Your task to perform on an android device: turn off smart reply in the gmail app Image 0: 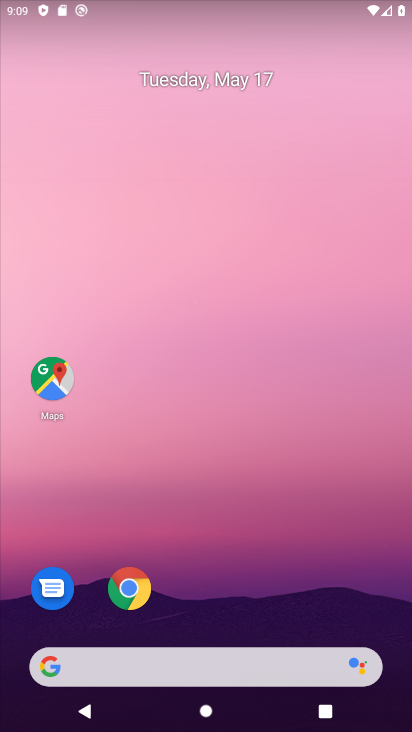
Step 0: drag from (211, 646) to (123, 19)
Your task to perform on an android device: turn off smart reply in the gmail app Image 1: 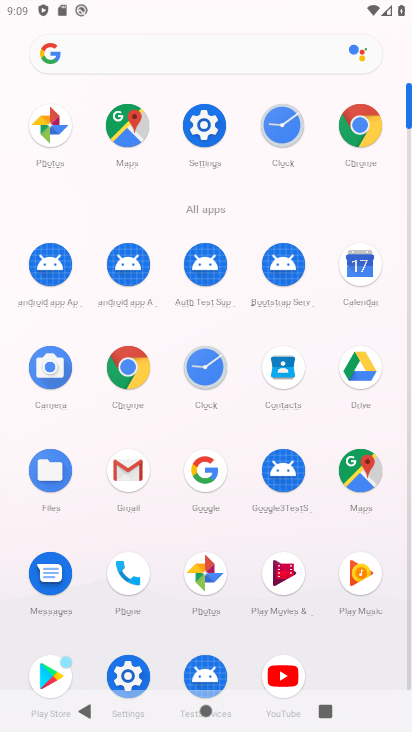
Step 1: click (136, 470)
Your task to perform on an android device: turn off smart reply in the gmail app Image 2: 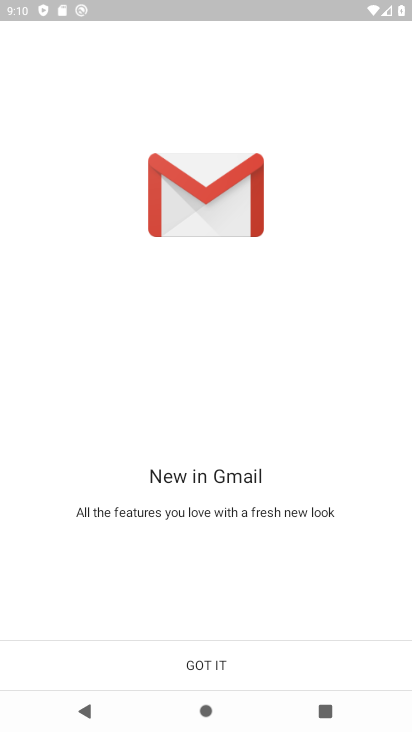
Step 2: click (244, 640)
Your task to perform on an android device: turn off smart reply in the gmail app Image 3: 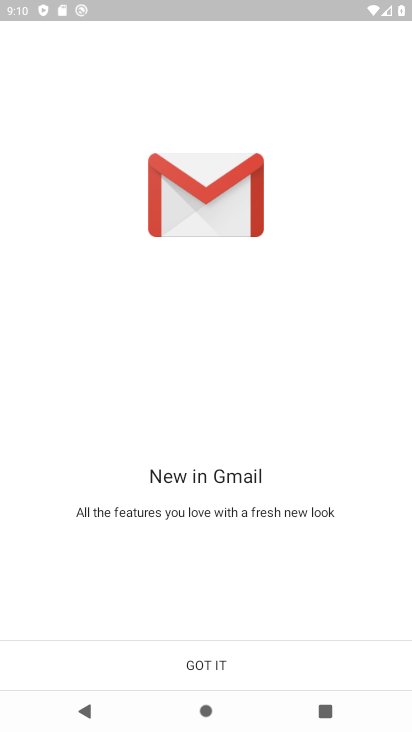
Step 3: click (254, 659)
Your task to perform on an android device: turn off smart reply in the gmail app Image 4: 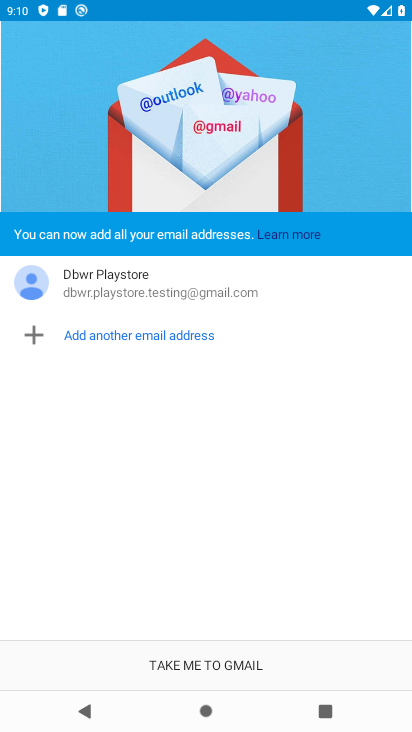
Step 4: click (254, 651)
Your task to perform on an android device: turn off smart reply in the gmail app Image 5: 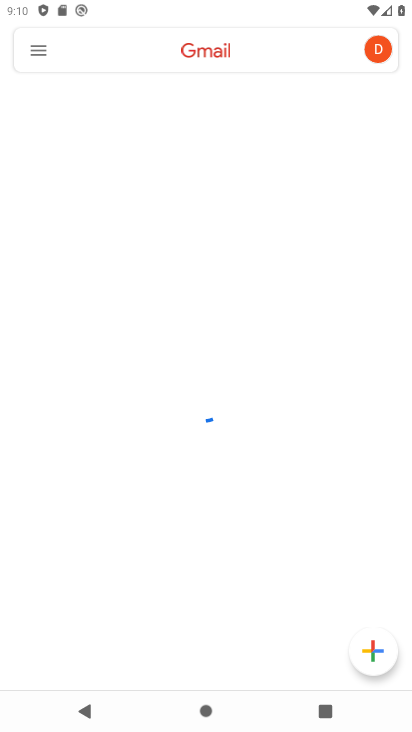
Step 5: click (34, 49)
Your task to perform on an android device: turn off smart reply in the gmail app Image 6: 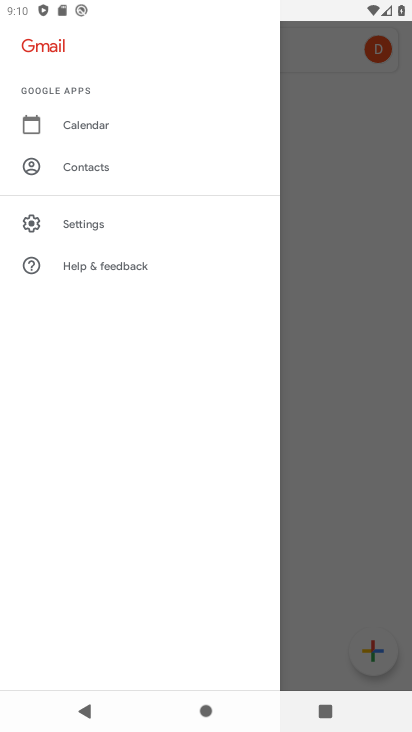
Step 6: click (92, 224)
Your task to perform on an android device: turn off smart reply in the gmail app Image 7: 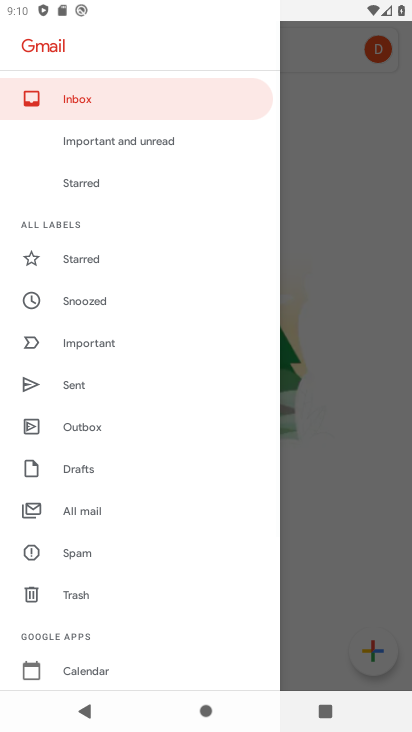
Step 7: drag from (134, 557) to (81, 50)
Your task to perform on an android device: turn off smart reply in the gmail app Image 8: 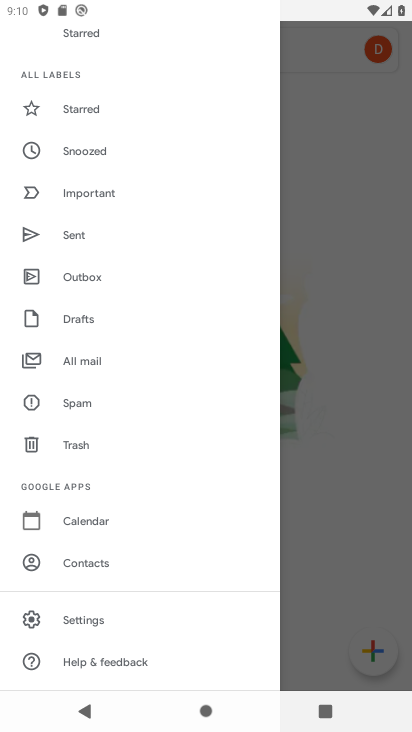
Step 8: click (80, 611)
Your task to perform on an android device: turn off smart reply in the gmail app Image 9: 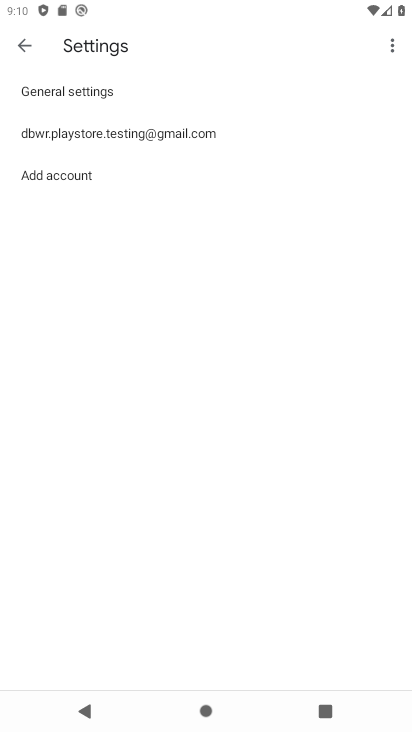
Step 9: click (72, 133)
Your task to perform on an android device: turn off smart reply in the gmail app Image 10: 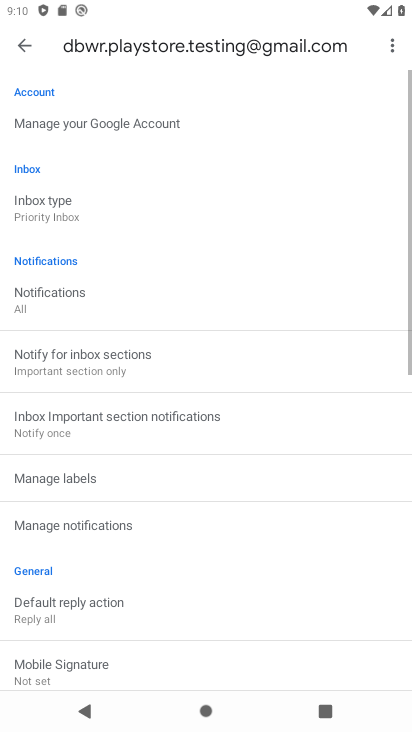
Step 10: drag from (169, 559) to (152, 167)
Your task to perform on an android device: turn off smart reply in the gmail app Image 11: 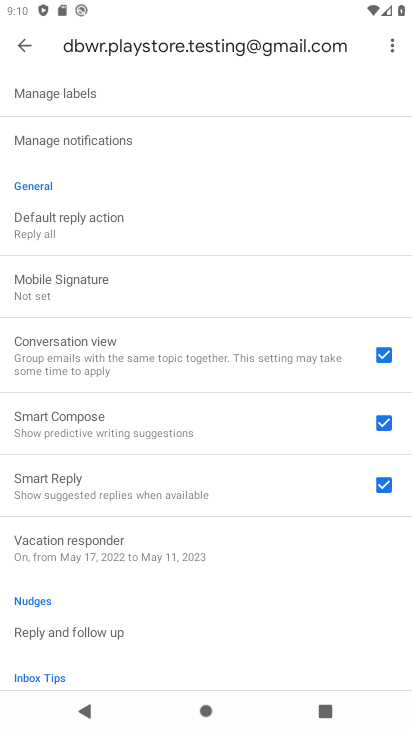
Step 11: click (381, 487)
Your task to perform on an android device: turn off smart reply in the gmail app Image 12: 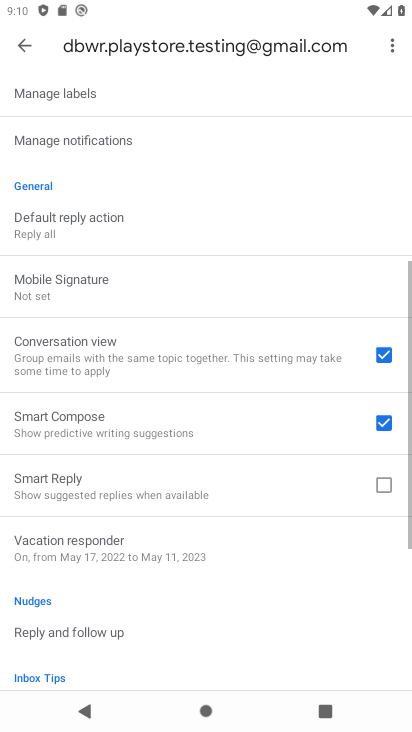
Step 12: task complete